Your task to perform on an android device: Clear the shopping cart on newegg.com. Search for "razer blade" on newegg.com, select the first entry, add it to the cart, then select checkout. Image 0: 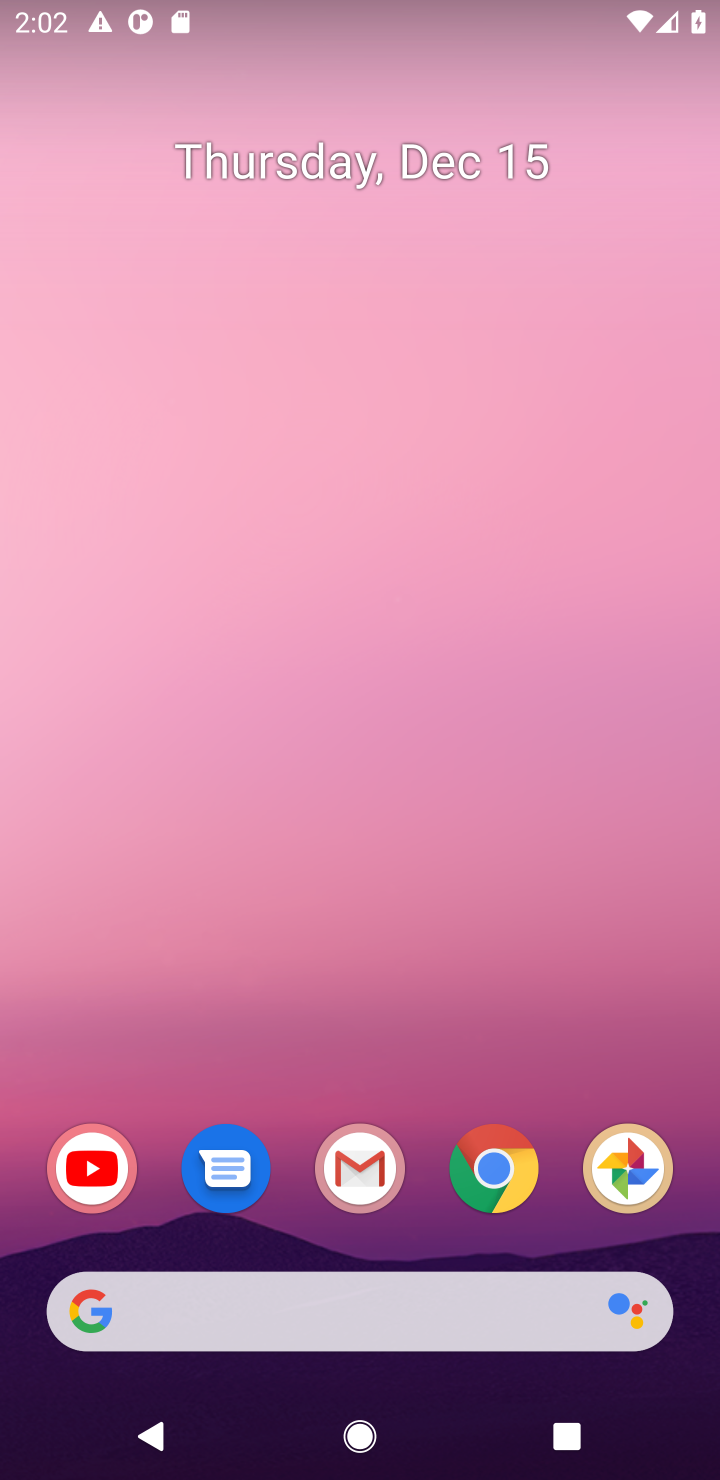
Step 0: click (496, 1160)
Your task to perform on an android device: Clear the shopping cart on newegg.com. Search for "razer blade" on newegg.com, select the first entry, add it to the cart, then select checkout. Image 1: 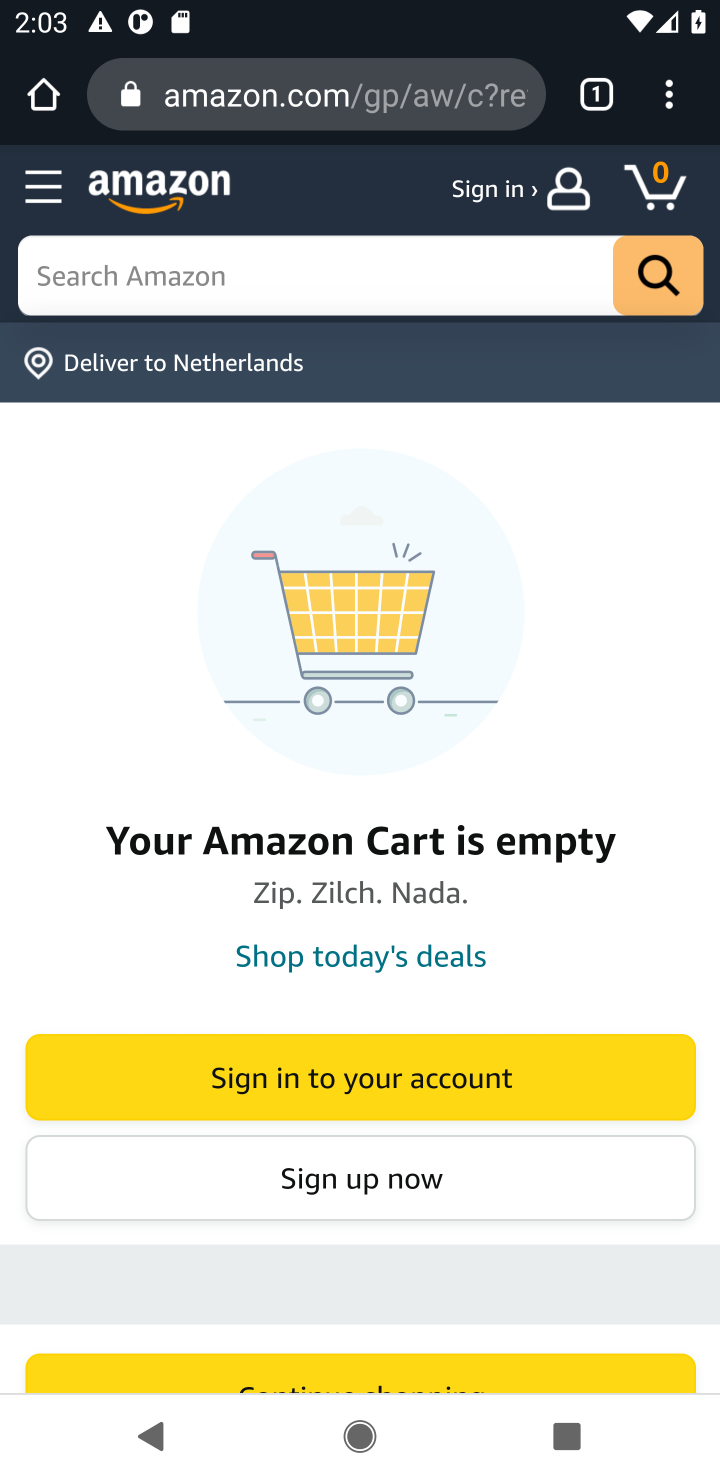
Step 1: click (301, 112)
Your task to perform on an android device: Clear the shopping cart on newegg.com. Search for "razer blade" on newegg.com, select the first entry, add it to the cart, then select checkout. Image 2: 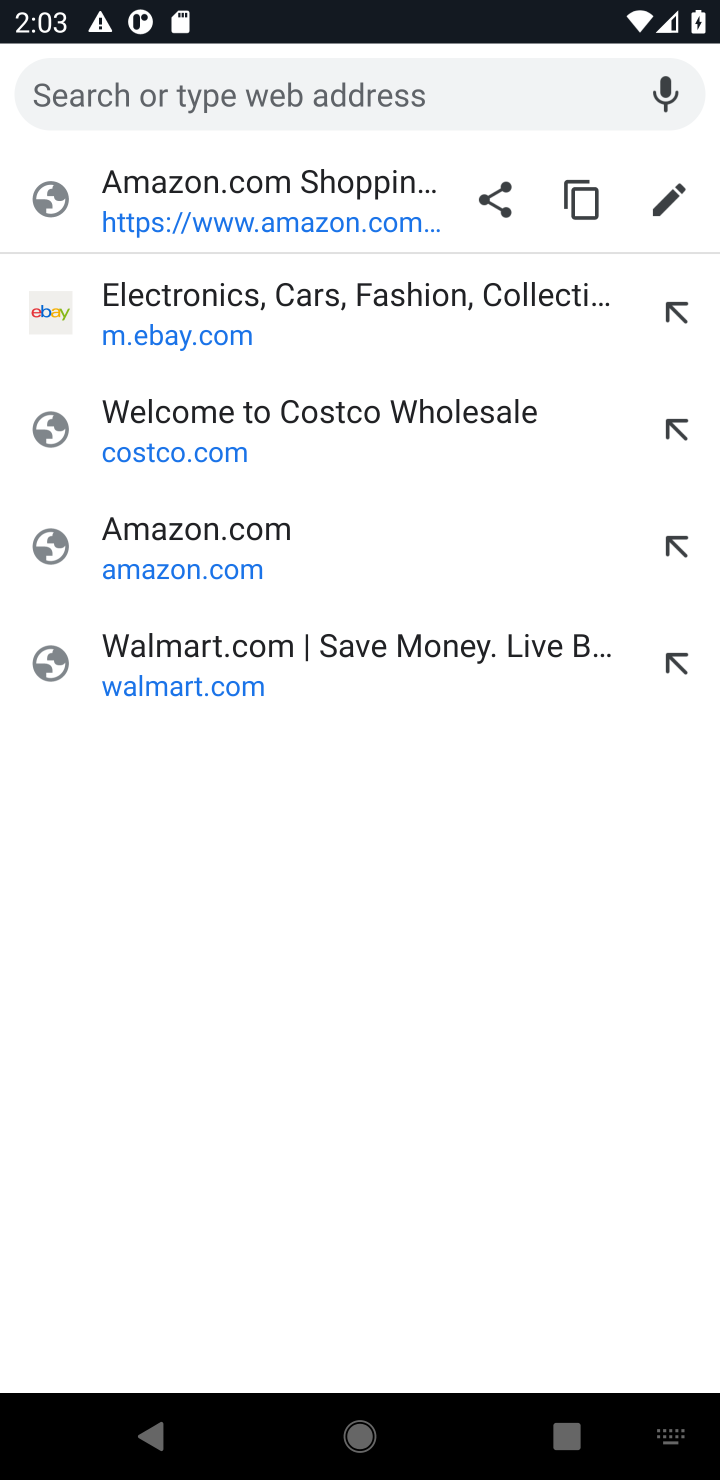
Step 2: press enter
Your task to perform on an android device: Clear the shopping cart on newegg.com. Search for "razer blade" on newegg.com, select the first entry, add it to the cart, then select checkout. Image 3: 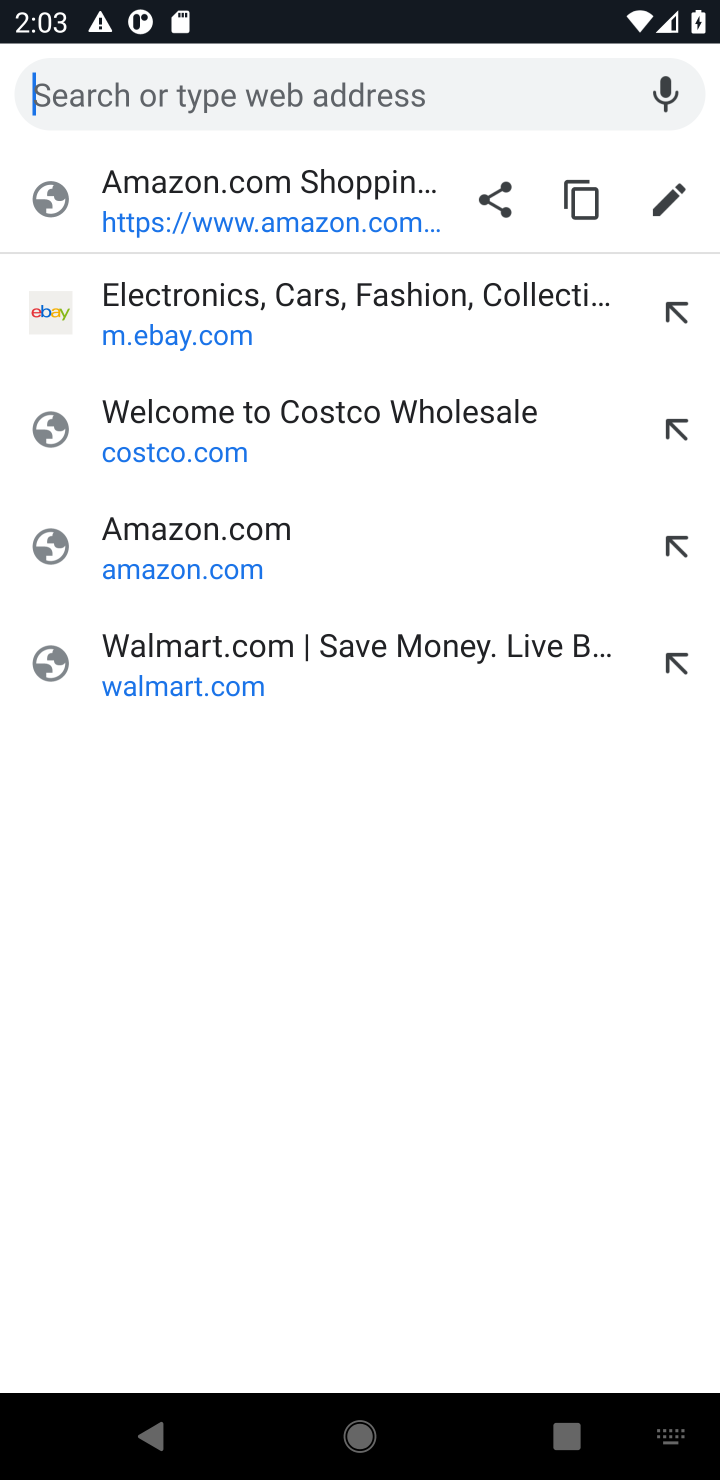
Step 3: type "newegg.com"
Your task to perform on an android device: Clear the shopping cart on newegg.com. Search for "razer blade" on newegg.com, select the first entry, add it to the cart, then select checkout. Image 4: 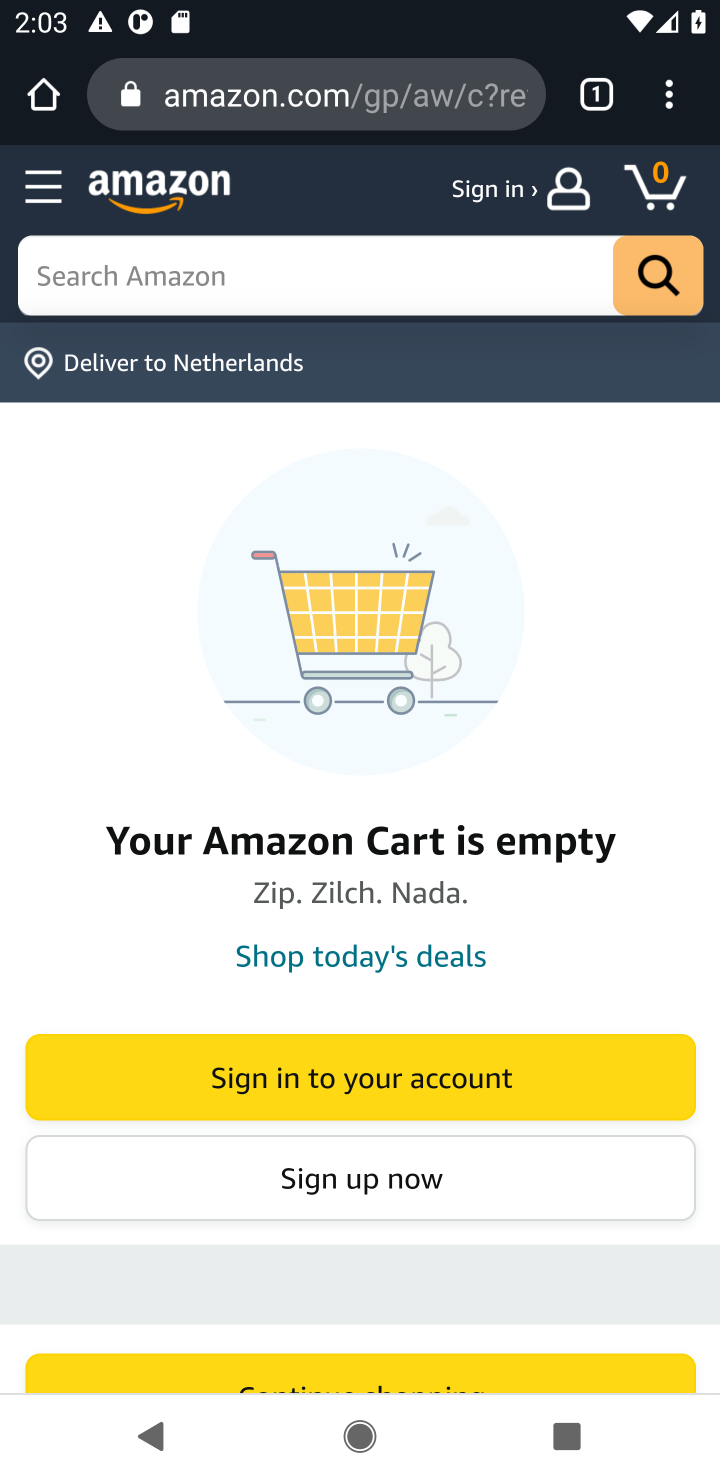
Step 4: click (370, 279)
Your task to perform on an android device: Clear the shopping cart on newegg.com. Search for "razer blade" on newegg.com, select the first entry, add it to the cart, then select checkout. Image 5: 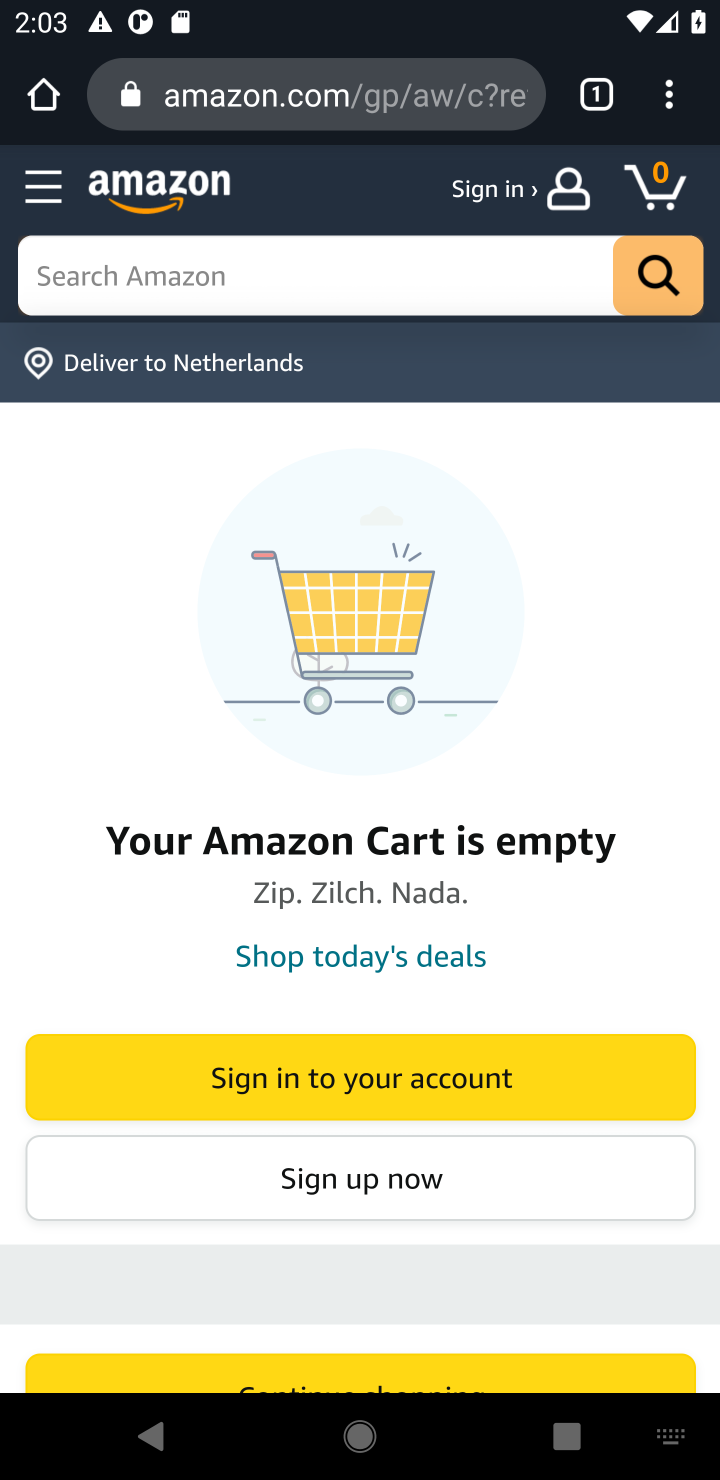
Step 5: click (364, 85)
Your task to perform on an android device: Clear the shopping cart on newegg.com. Search for "razer blade" on newegg.com, select the first entry, add it to the cart, then select checkout. Image 6: 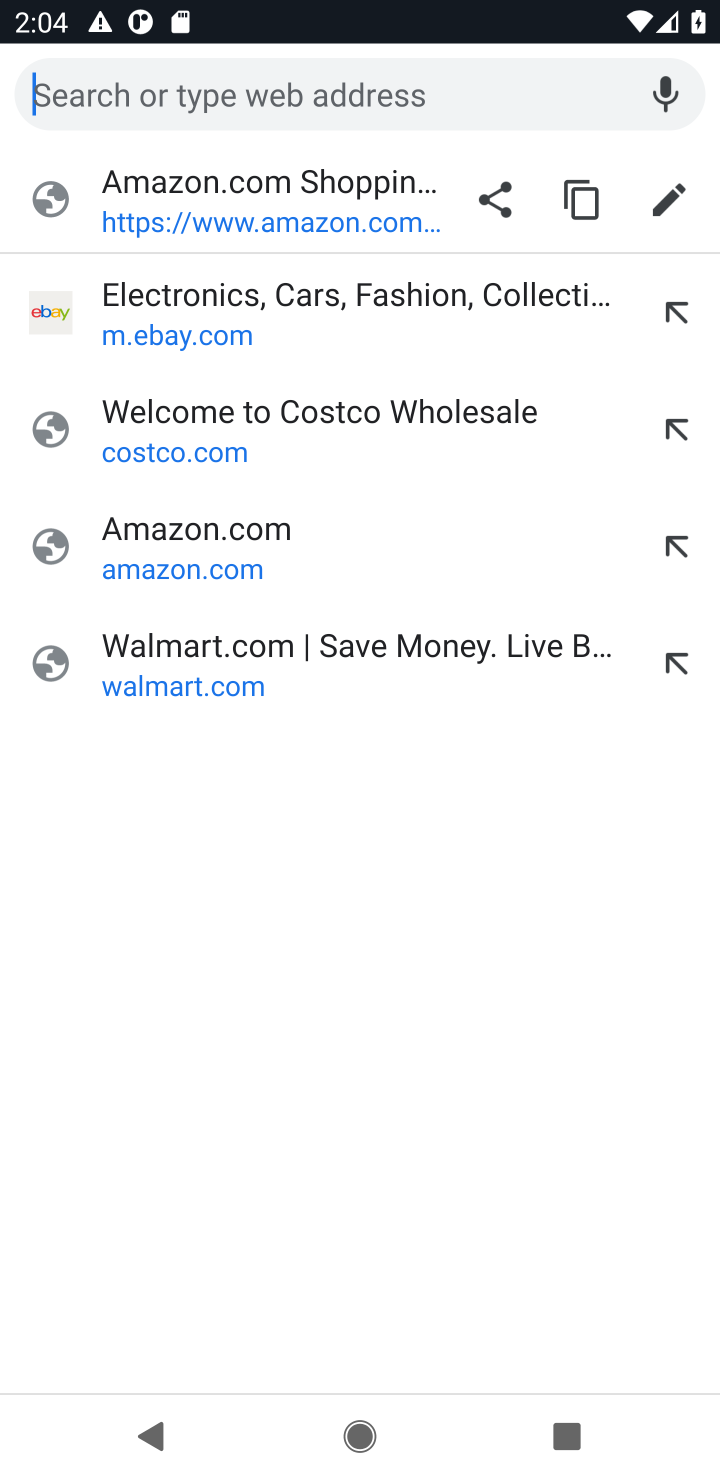
Step 6: press enter
Your task to perform on an android device: Clear the shopping cart on newegg.com. Search for "razer blade" on newegg.com, select the first entry, add it to the cart, then select checkout. Image 7: 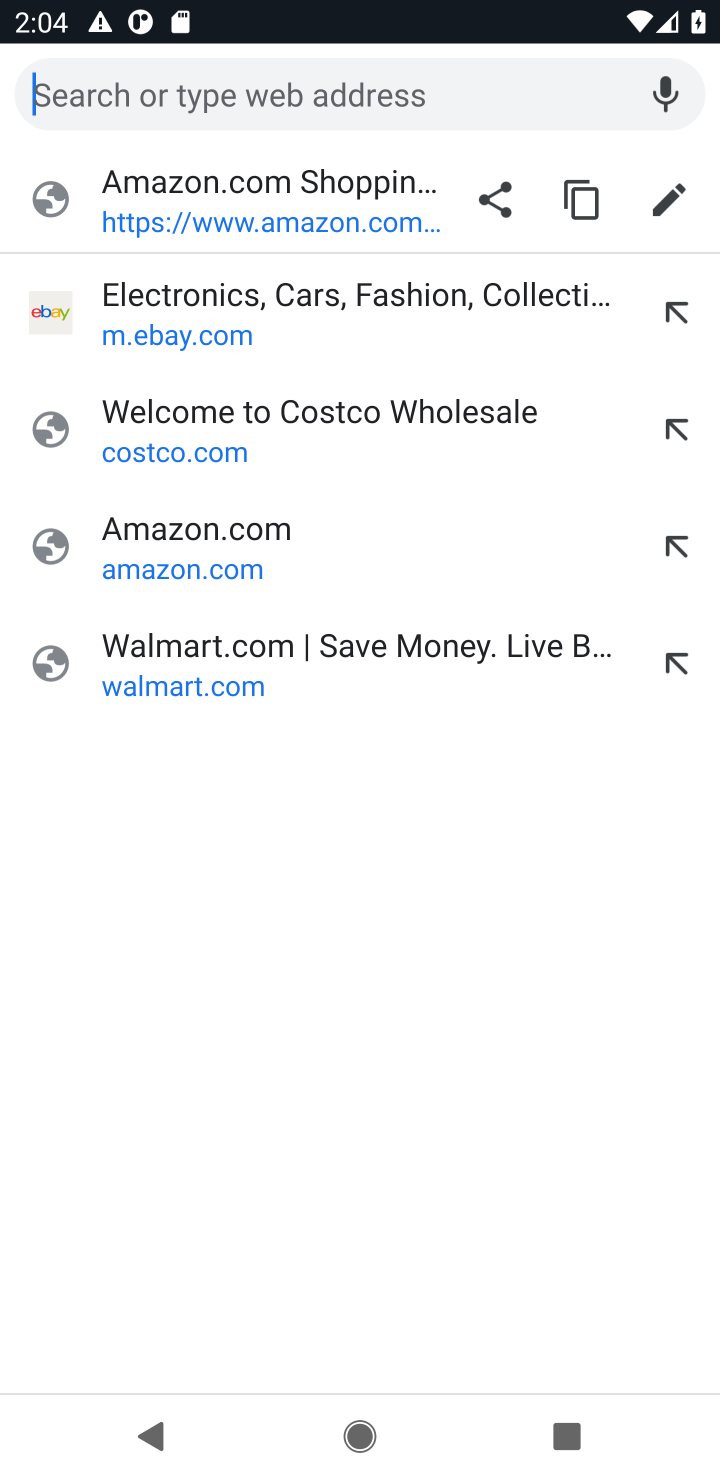
Step 7: type "newegg.com"
Your task to perform on an android device: Clear the shopping cart on newegg.com. Search for "razer blade" on newegg.com, select the first entry, add it to the cart, then select checkout. Image 8: 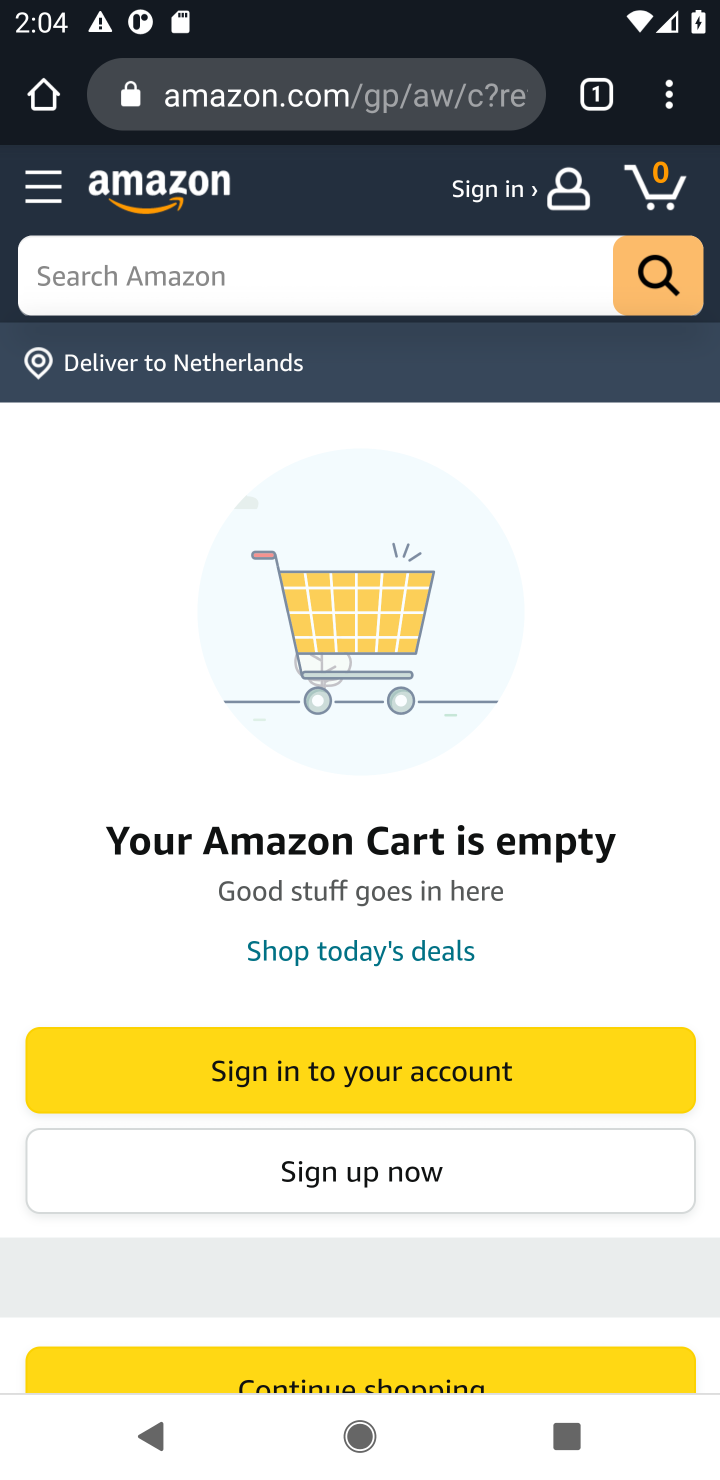
Step 8: click (342, 96)
Your task to perform on an android device: Clear the shopping cart on newegg.com. Search for "razer blade" on newegg.com, select the first entry, add it to the cart, then select checkout. Image 9: 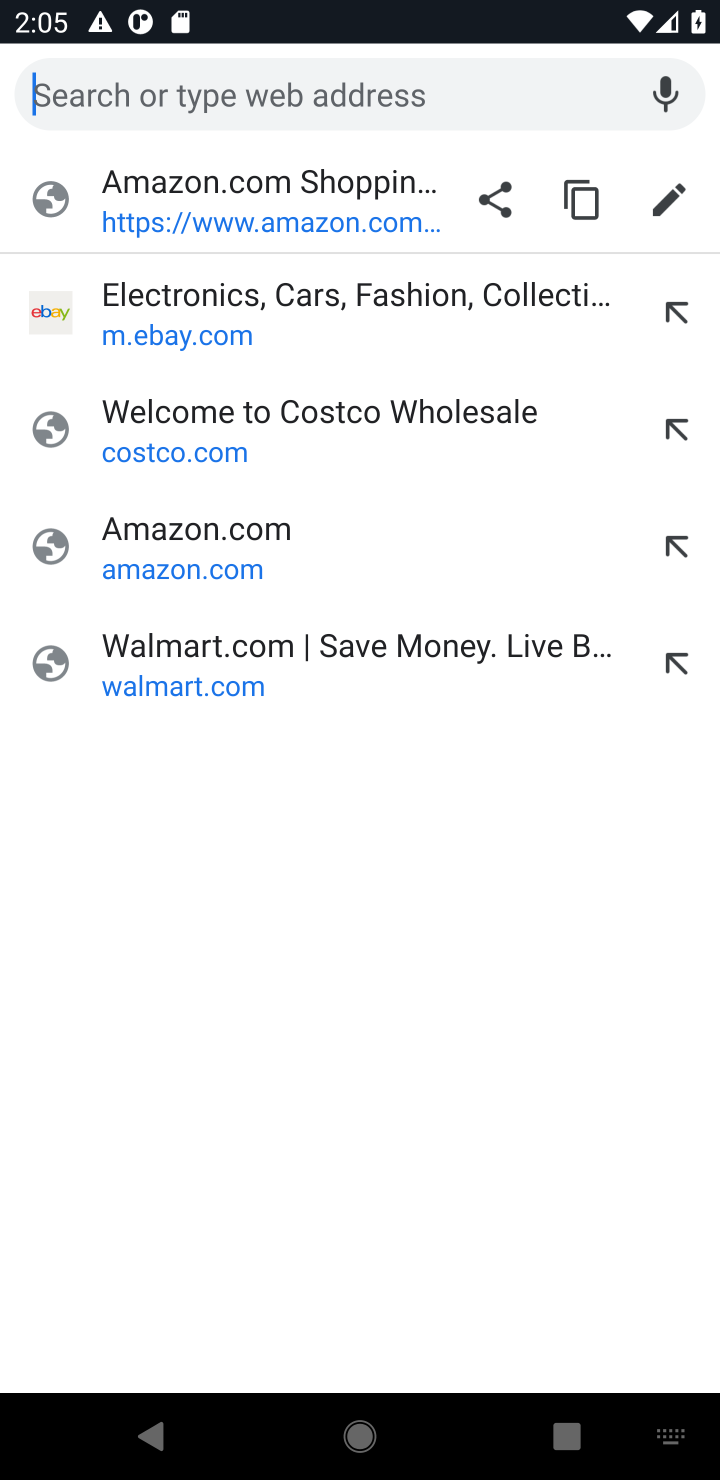
Step 9: press enter
Your task to perform on an android device: Clear the shopping cart on newegg.com. Search for "razer blade" on newegg.com, select the first entry, add it to the cart, then select checkout. Image 10: 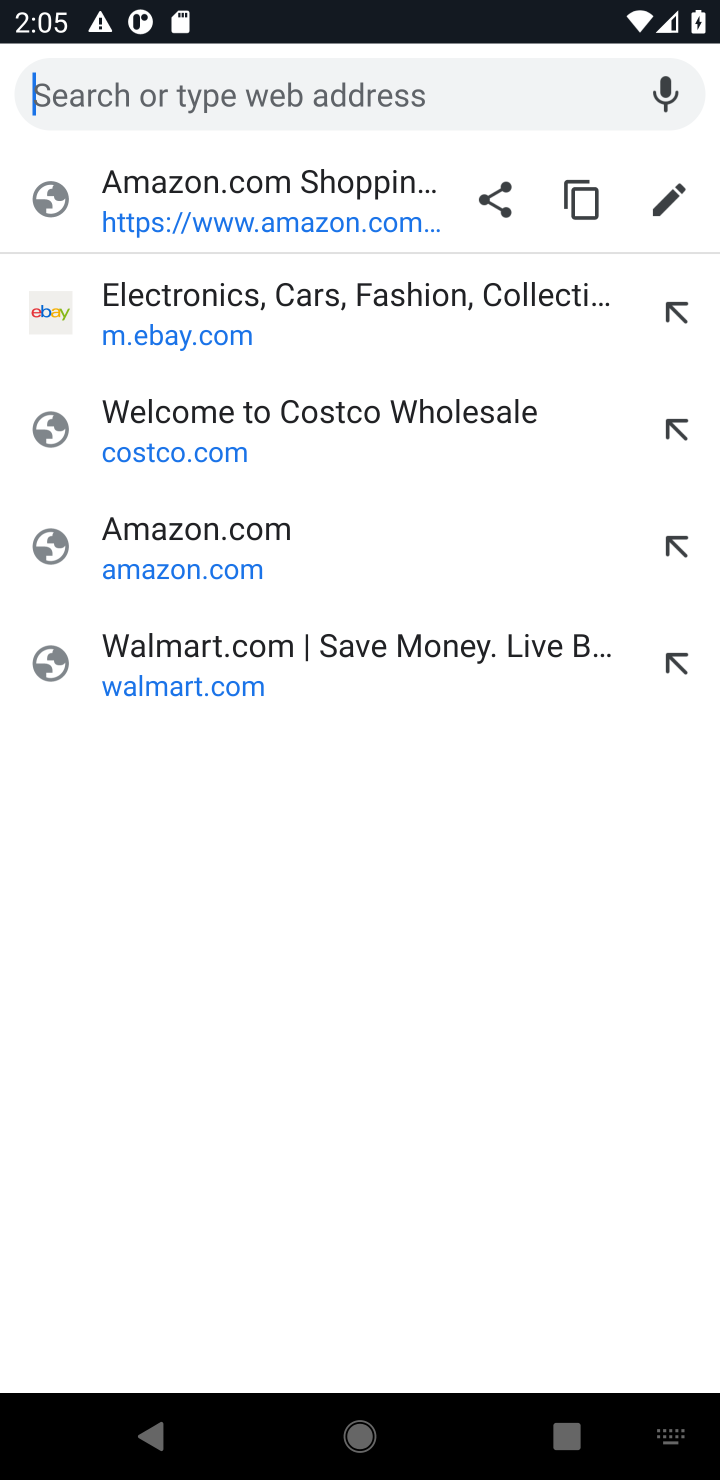
Step 10: type "newegg.com"
Your task to perform on an android device: Clear the shopping cart on newegg.com. Search for "razer blade" on newegg.com, select the first entry, add it to the cart, then select checkout. Image 11: 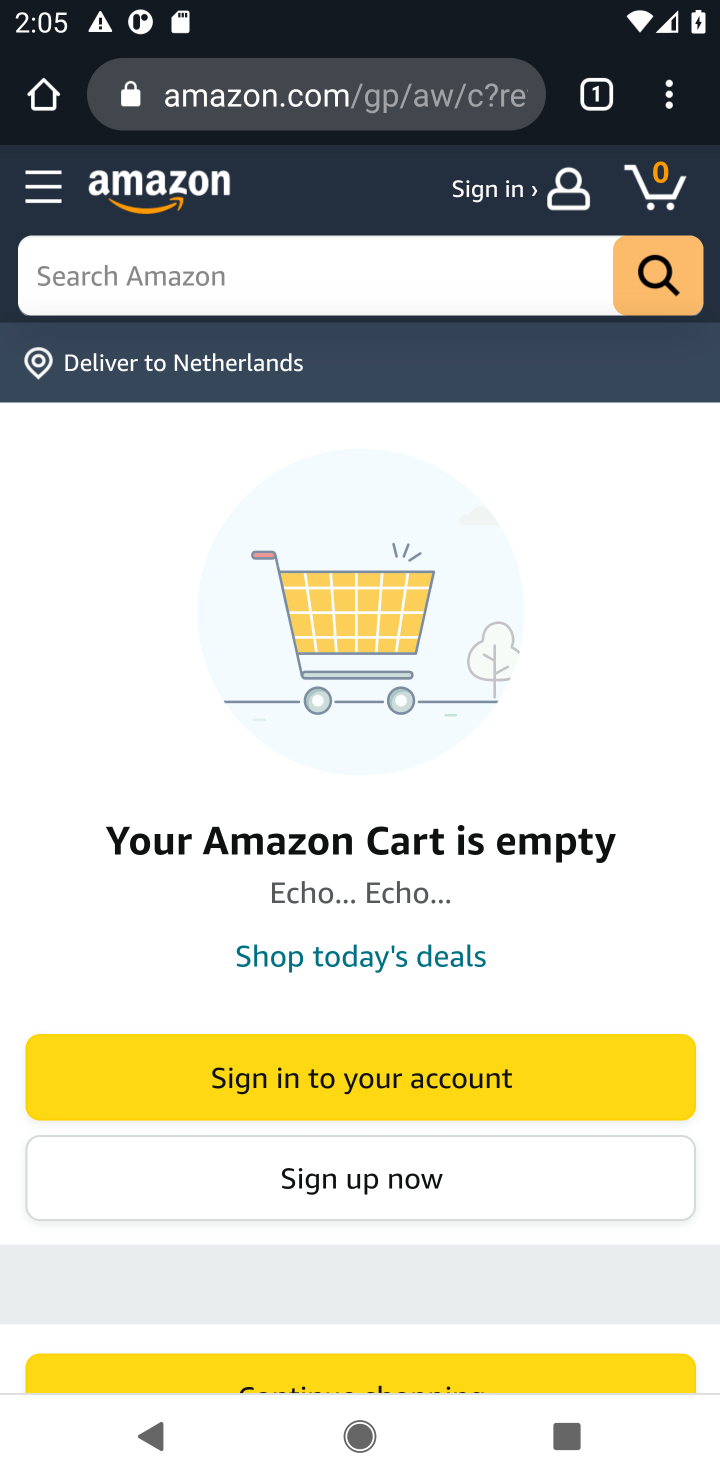
Step 11: click (41, 107)
Your task to perform on an android device: Clear the shopping cart on newegg.com. Search for "razer blade" on newegg.com, select the first entry, add it to the cart, then select checkout. Image 12: 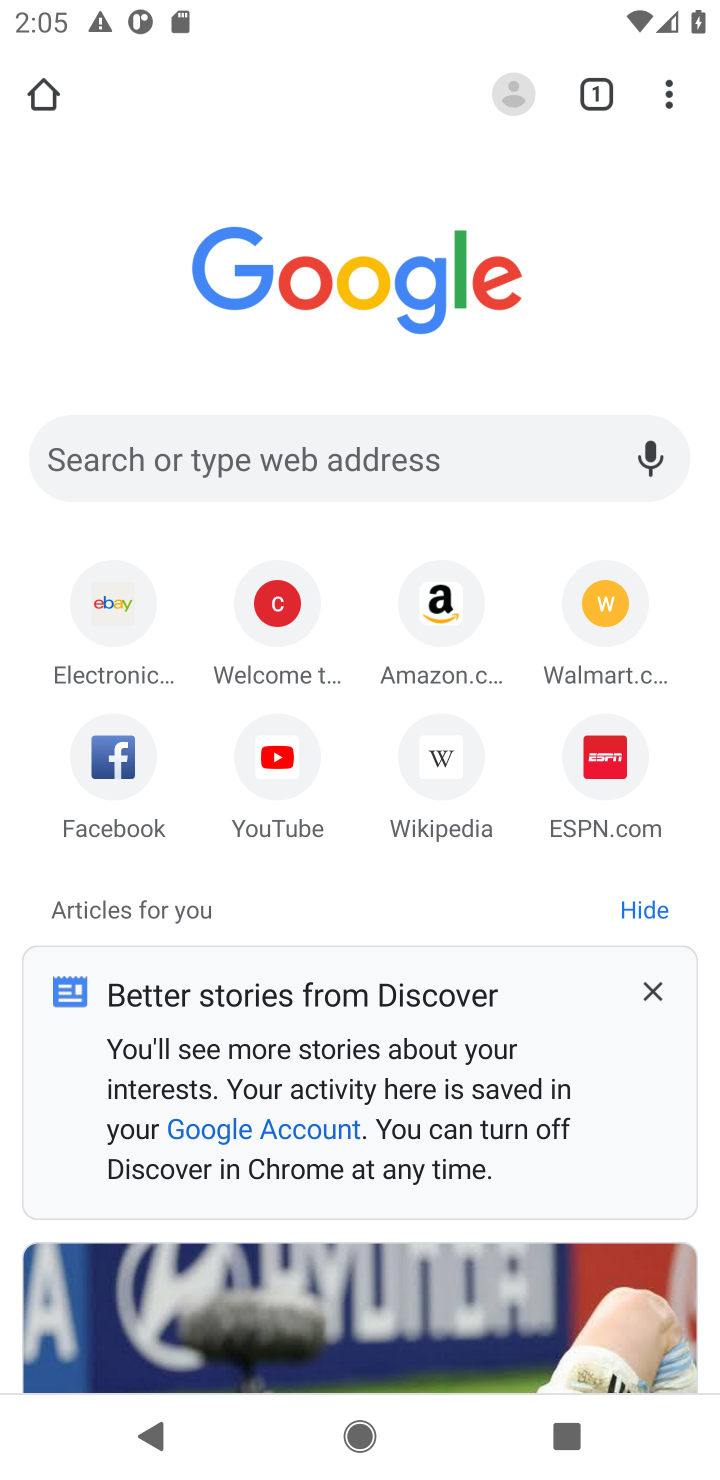
Step 12: click (473, 459)
Your task to perform on an android device: Clear the shopping cart on newegg.com. Search for "razer blade" on newegg.com, select the first entry, add it to the cart, then select checkout. Image 13: 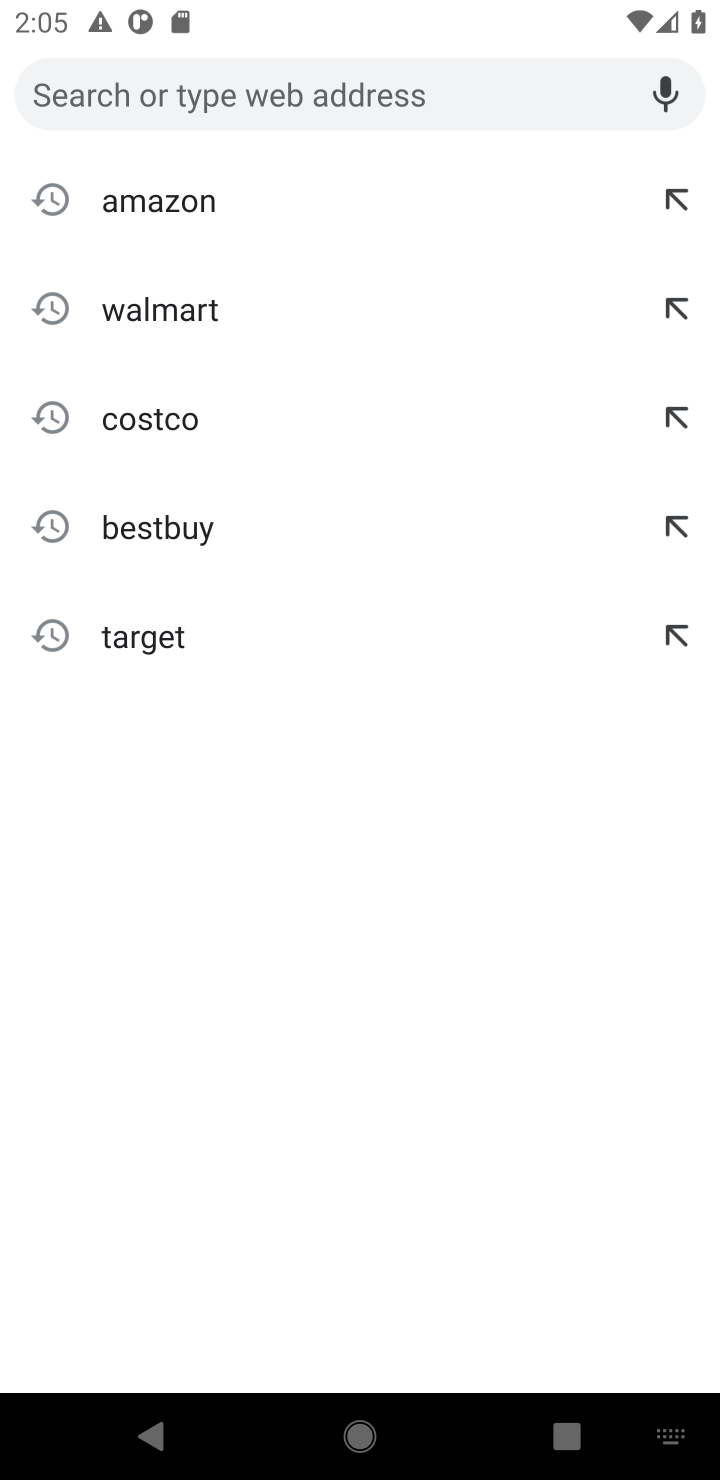
Step 13: press enter
Your task to perform on an android device: Clear the shopping cart on newegg.com. Search for "razer blade" on newegg.com, select the first entry, add it to the cart, then select checkout. Image 14: 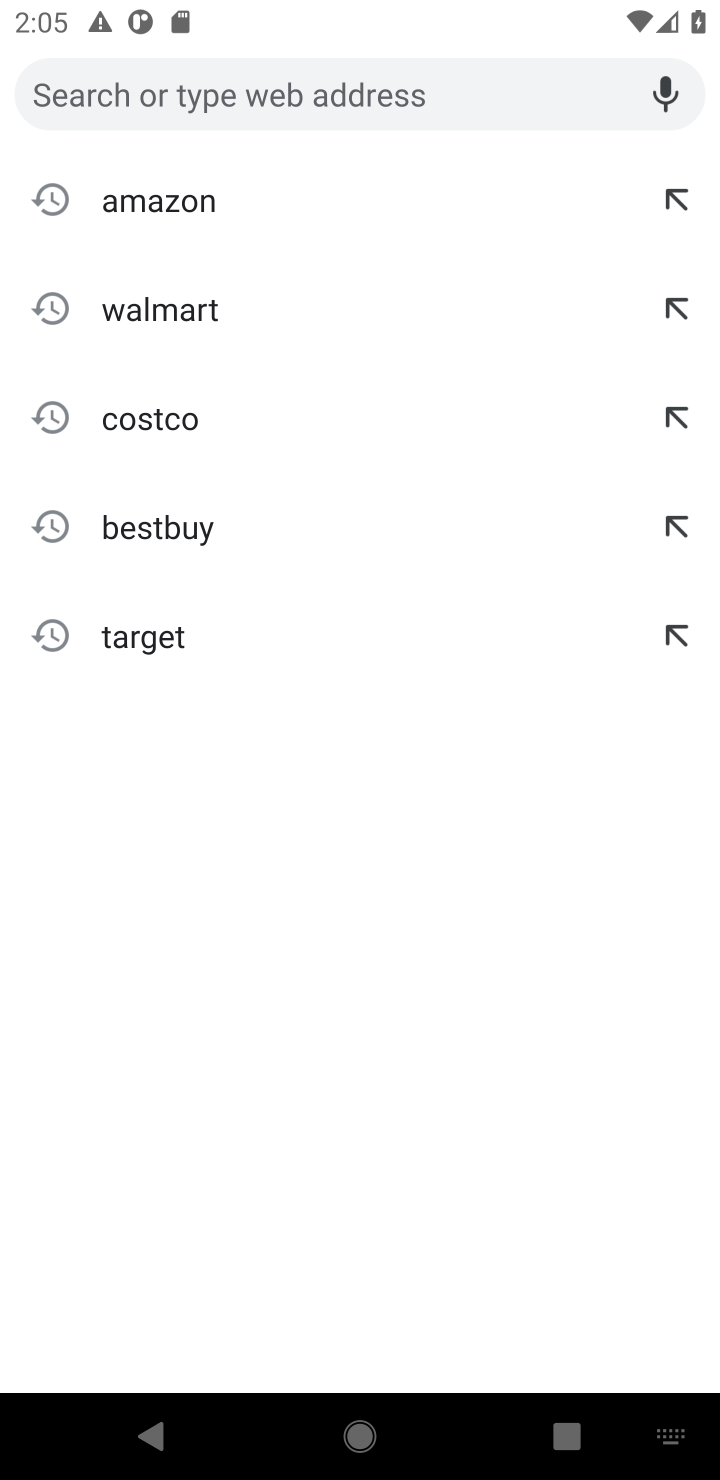
Step 14: type "newegg.com"
Your task to perform on an android device: Clear the shopping cart on newegg.com. Search for "razer blade" on newegg.com, select the first entry, add it to the cart, then select checkout. Image 15: 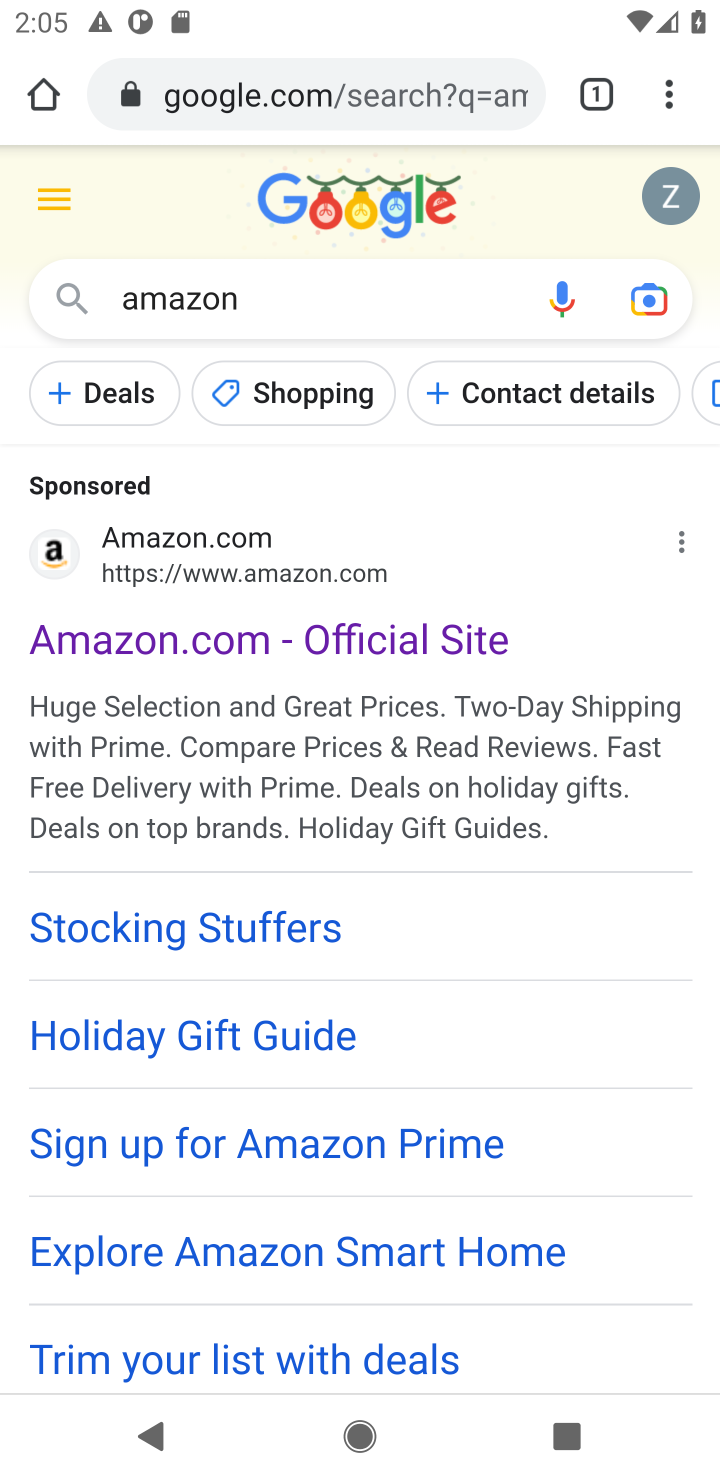
Step 15: click (43, 109)
Your task to perform on an android device: Clear the shopping cart on newegg.com. Search for "razer blade" on newegg.com, select the first entry, add it to the cart, then select checkout. Image 16: 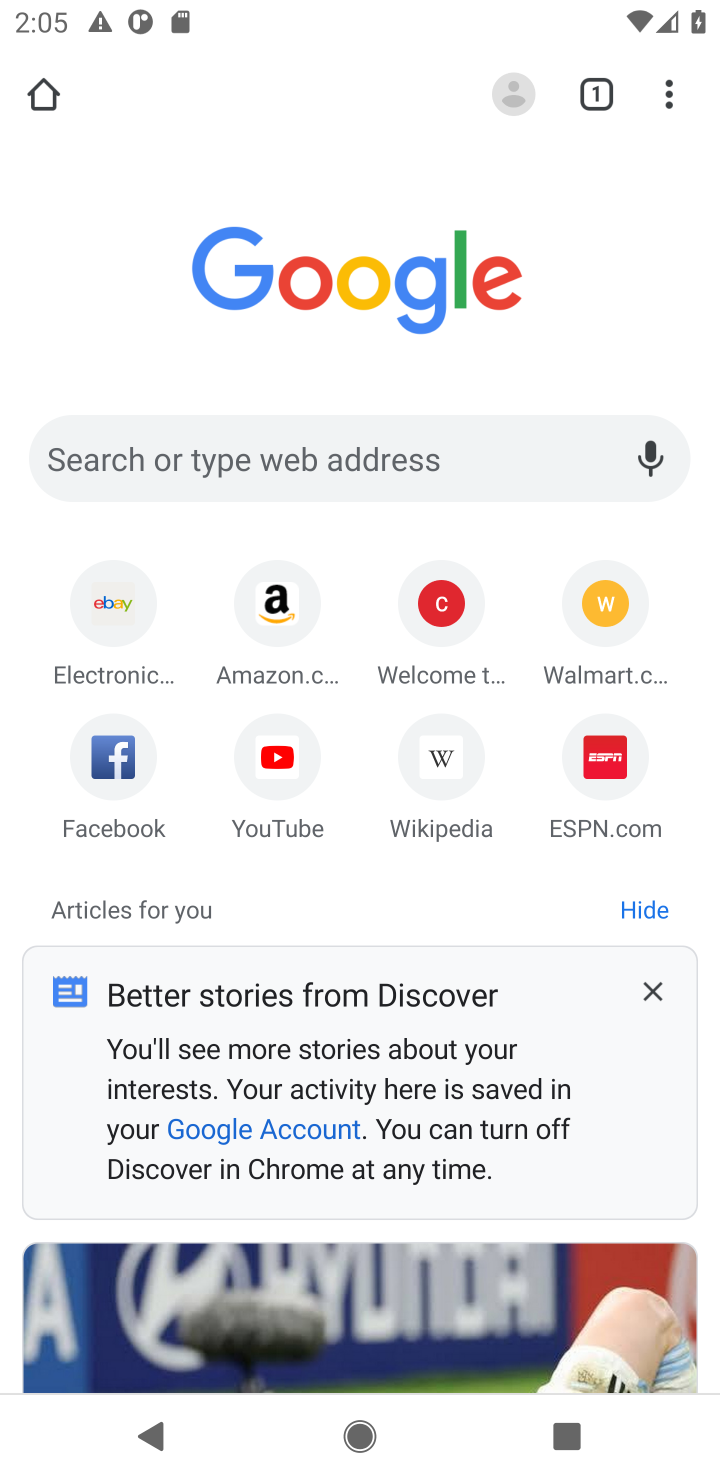
Step 16: click (425, 481)
Your task to perform on an android device: Clear the shopping cart on newegg.com. Search for "razer blade" on newegg.com, select the first entry, add it to the cart, then select checkout. Image 17: 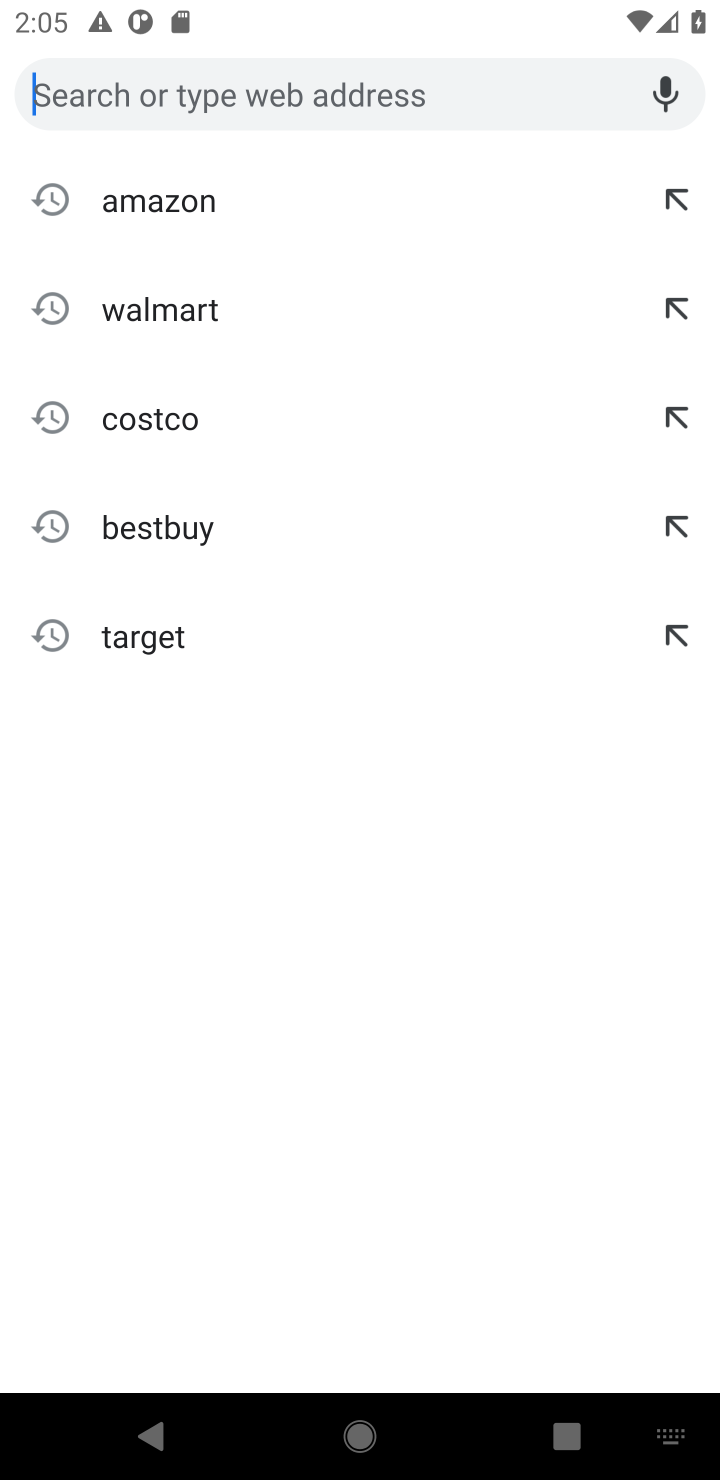
Step 17: press enter
Your task to perform on an android device: Clear the shopping cart on newegg.com. Search for "razer blade" on newegg.com, select the first entry, add it to the cart, then select checkout. Image 18: 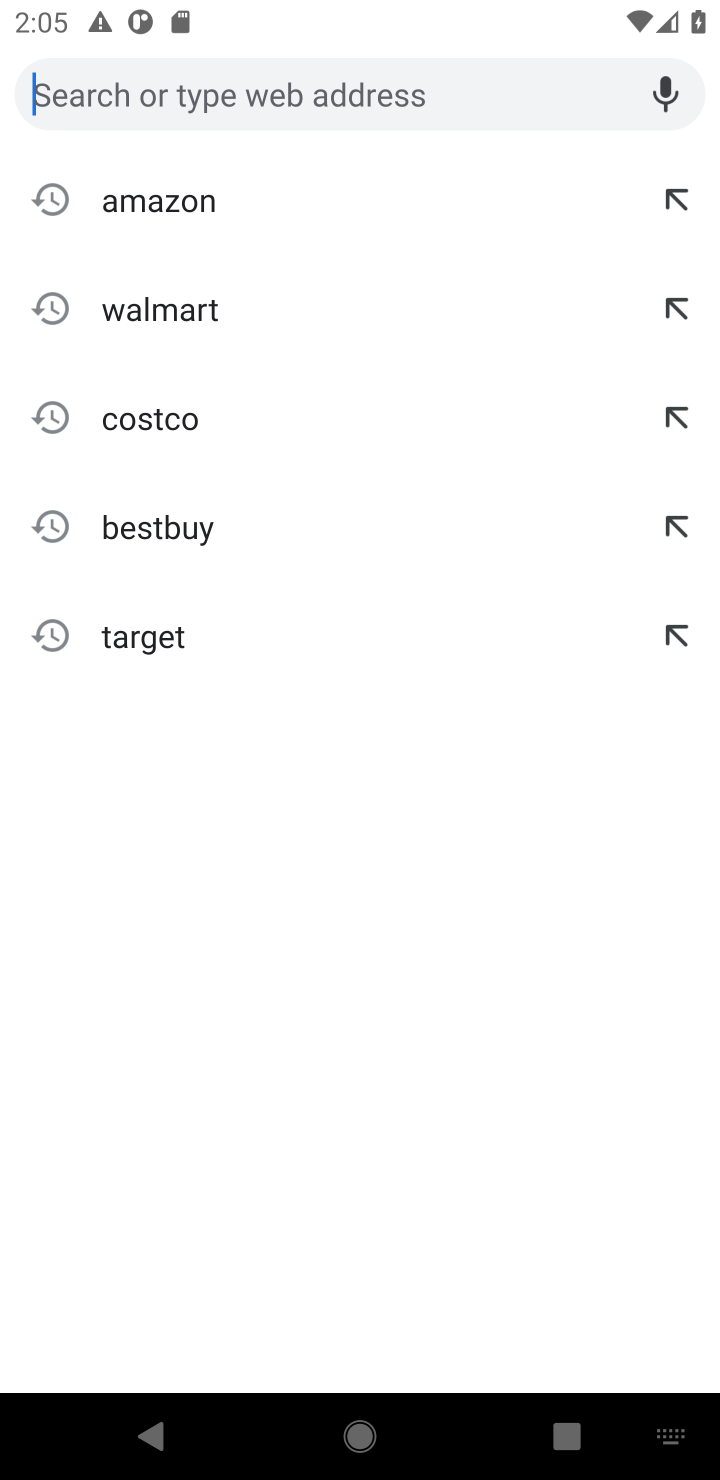
Step 18: type "newegg.com"
Your task to perform on an android device: Clear the shopping cart on newegg.com. Search for "razer blade" on newegg.com, select the first entry, add it to the cart, then select checkout. Image 19: 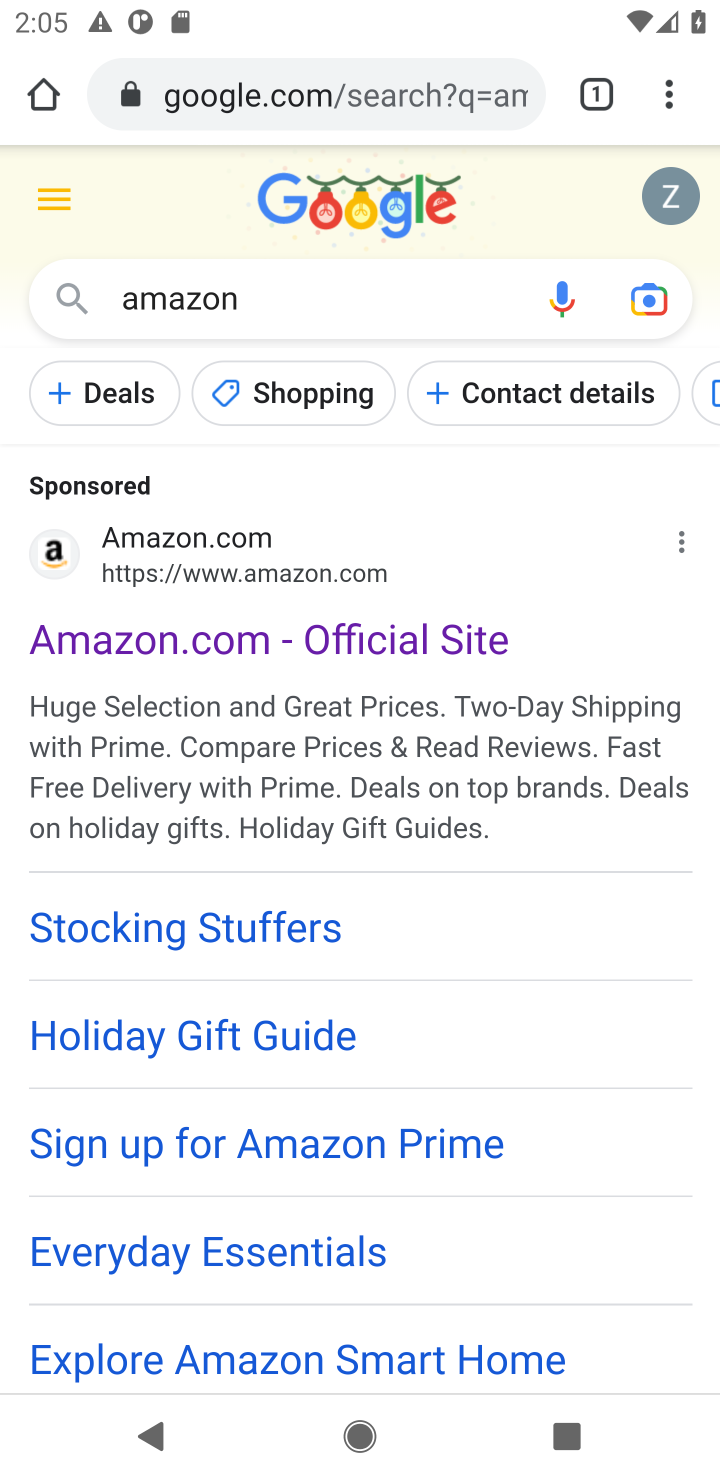
Step 19: click (43, 97)
Your task to perform on an android device: Clear the shopping cart on newegg.com. Search for "razer blade" on newegg.com, select the first entry, add it to the cart, then select checkout. Image 20: 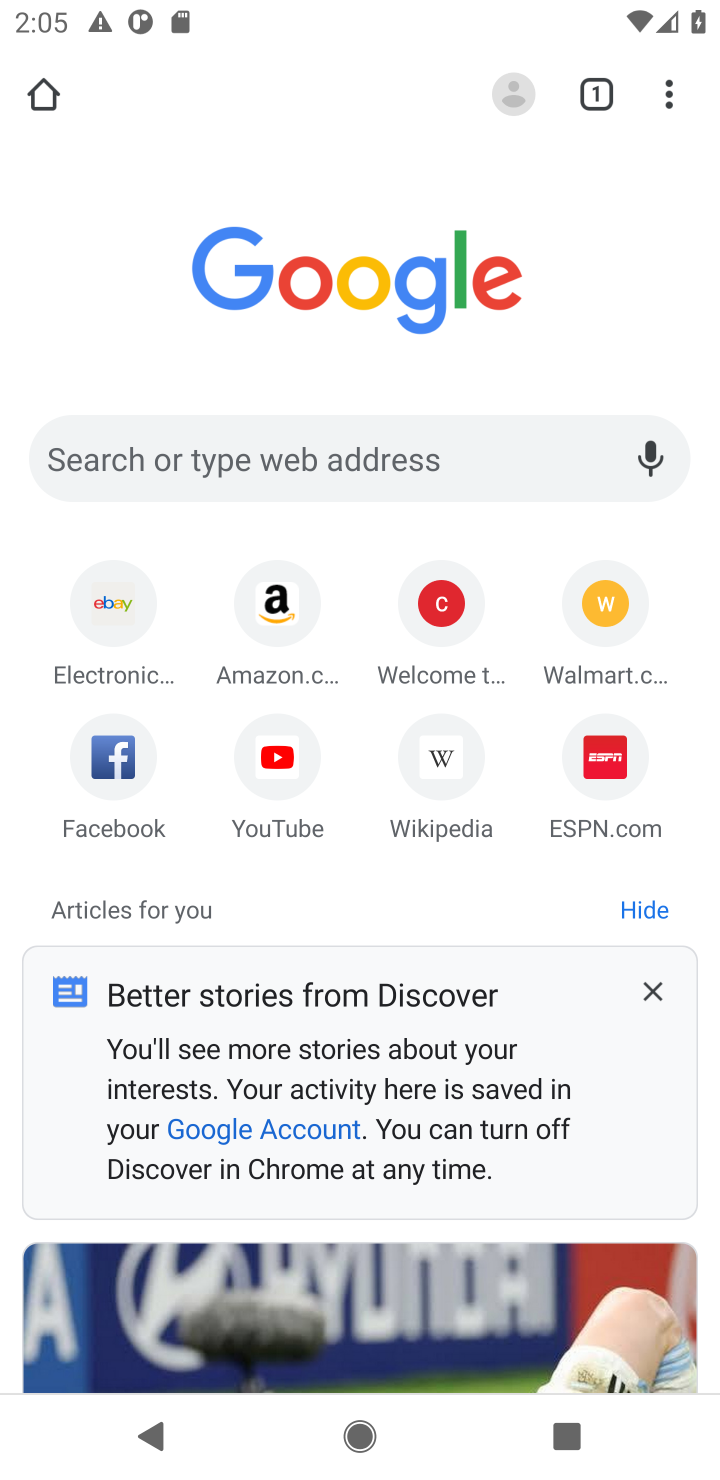
Step 20: click (220, 469)
Your task to perform on an android device: Clear the shopping cart on newegg.com. Search for "razer blade" on newegg.com, select the first entry, add it to the cart, then select checkout. Image 21: 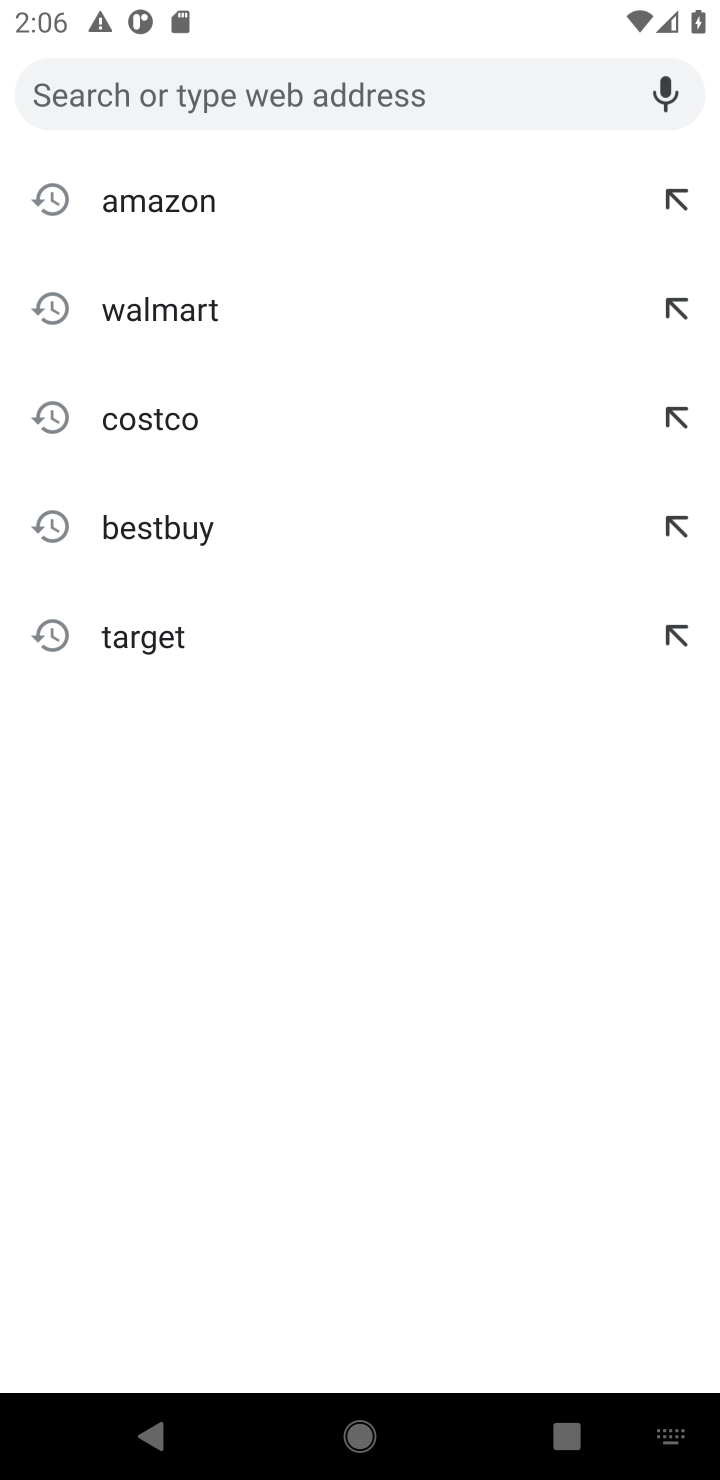
Step 21: press enter
Your task to perform on an android device: Clear the shopping cart on newegg.com. Search for "razer blade" on newegg.com, select the first entry, add it to the cart, then select checkout. Image 22: 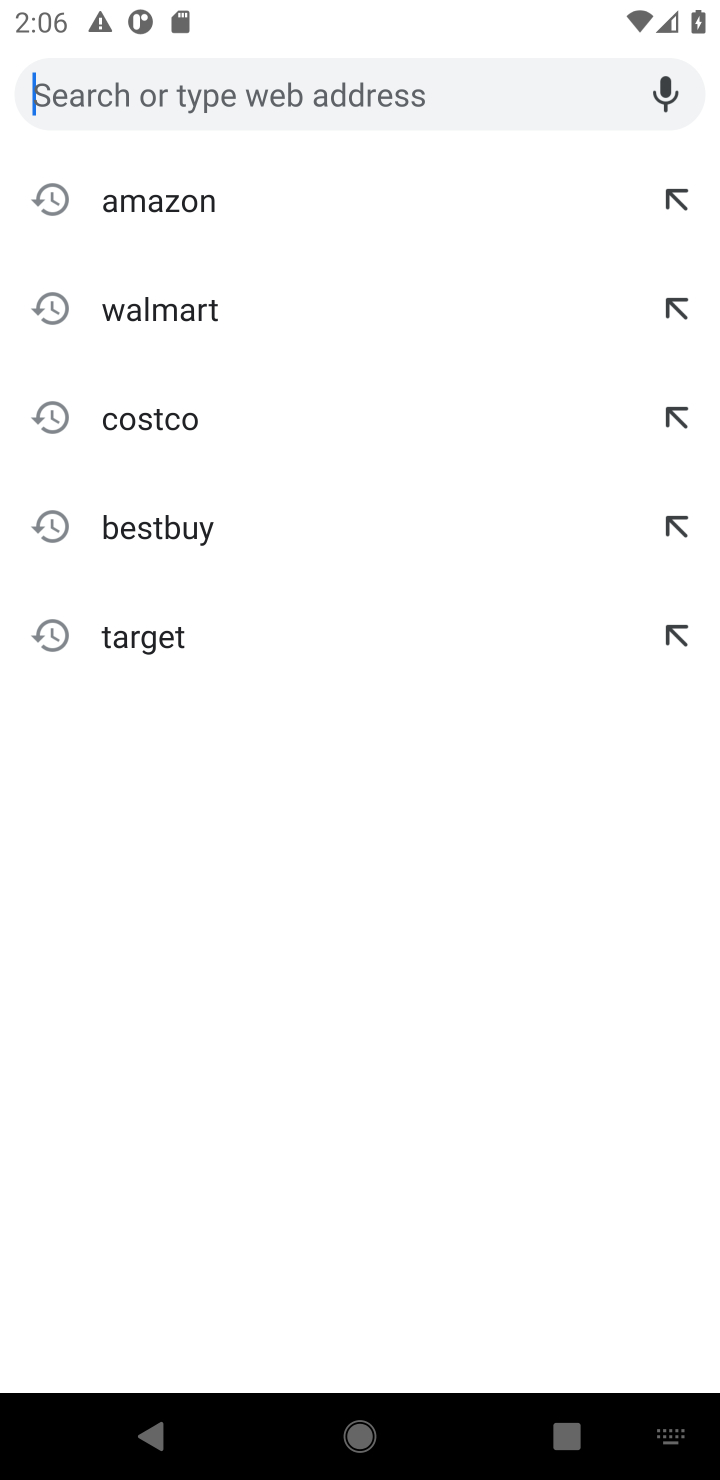
Step 22: type "newegg.com"
Your task to perform on an android device: Clear the shopping cart on newegg.com. Search for "razer blade" on newegg.com, select the first entry, add it to the cart, then select checkout. Image 23: 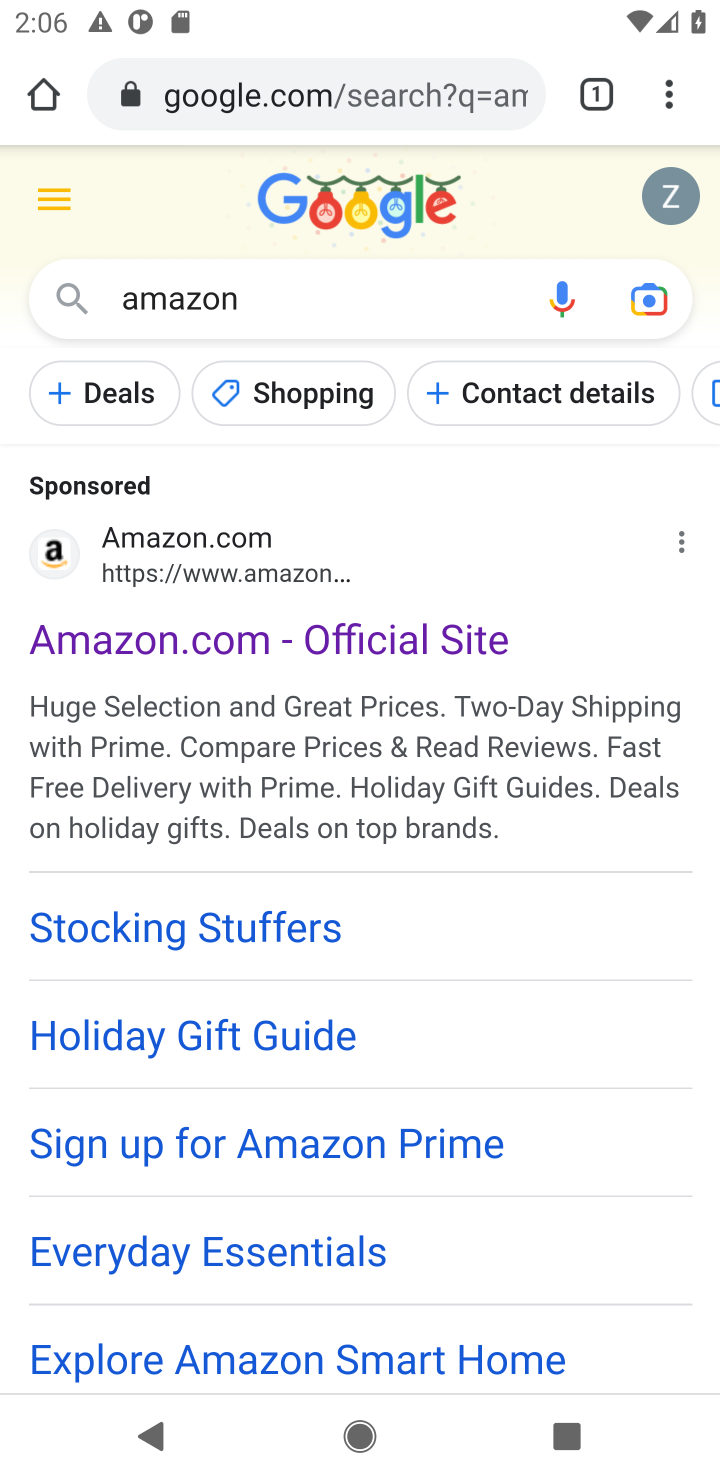
Step 23: click (473, 104)
Your task to perform on an android device: Clear the shopping cart on newegg.com. Search for "razer blade" on newegg.com, select the first entry, add it to the cart, then select checkout. Image 24: 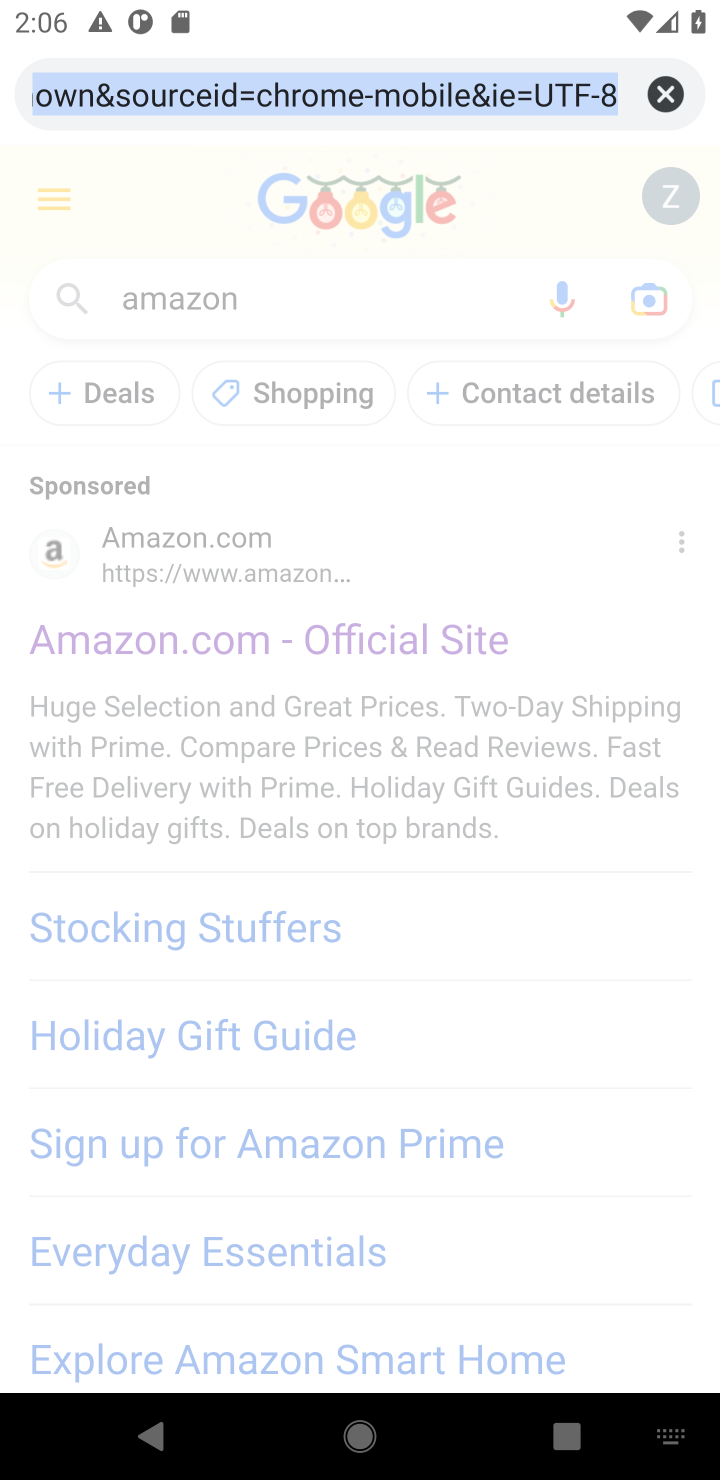
Step 24: press enter
Your task to perform on an android device: Clear the shopping cart on newegg.com. Search for "razer blade" on newegg.com, select the first entry, add it to the cart, then select checkout. Image 25: 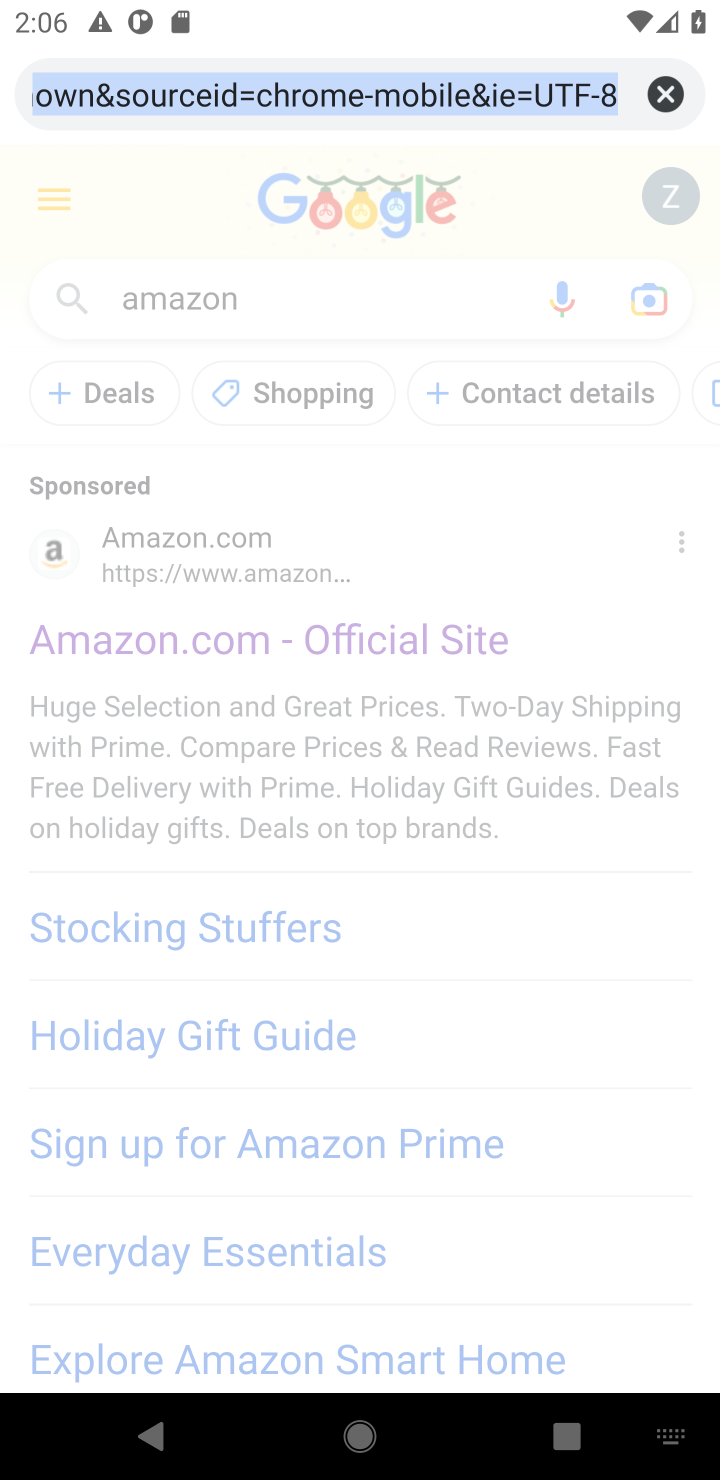
Step 25: type "newegg.com"
Your task to perform on an android device: Clear the shopping cart on newegg.com. Search for "razer blade" on newegg.com, select the first entry, add it to the cart, then select checkout. Image 26: 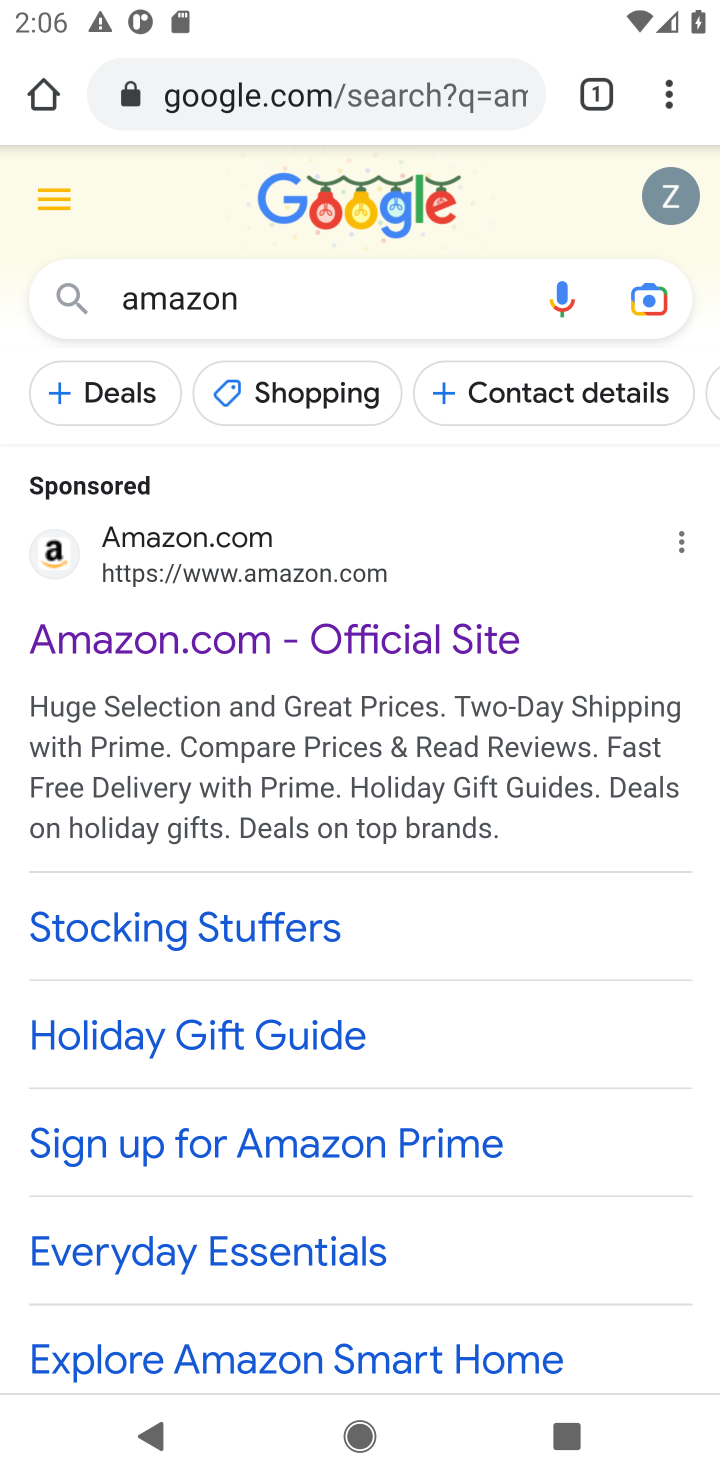
Step 26: task complete